Your task to perform on an android device: Empty the shopping cart on amazon. Search for rayovac triple a on amazon, select the first entry, add it to the cart, then select checkout. Image 0: 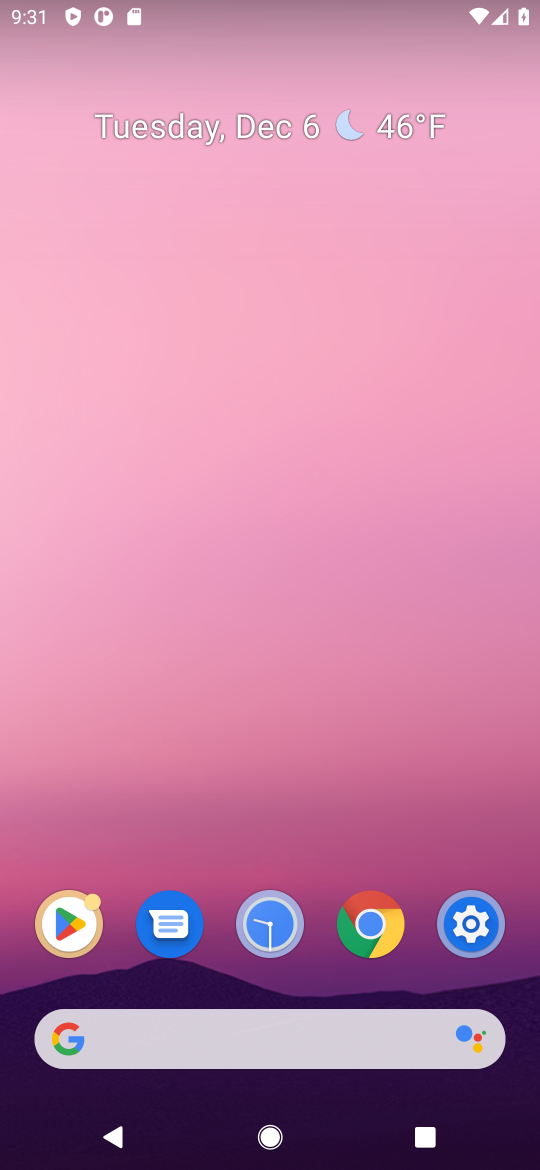
Step 0: click (278, 1030)
Your task to perform on an android device: Empty the shopping cart on amazon. Search for rayovac triple a on amazon, select the first entry, add it to the cart, then select checkout. Image 1: 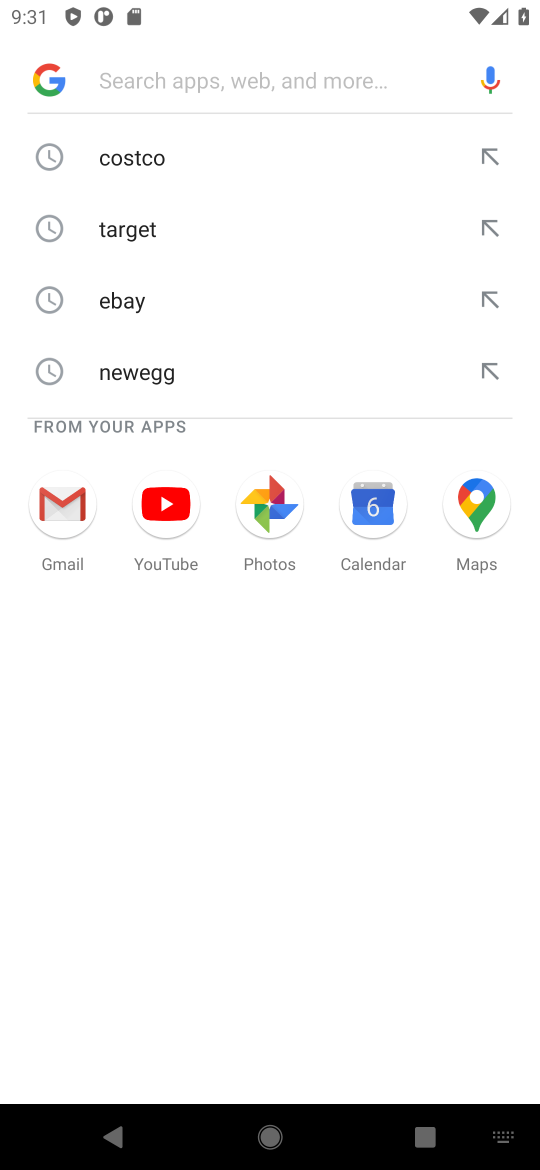
Step 1: type "amazon"
Your task to perform on an android device: Empty the shopping cart on amazon. Search for rayovac triple a on amazon, select the first entry, add it to the cart, then select checkout. Image 2: 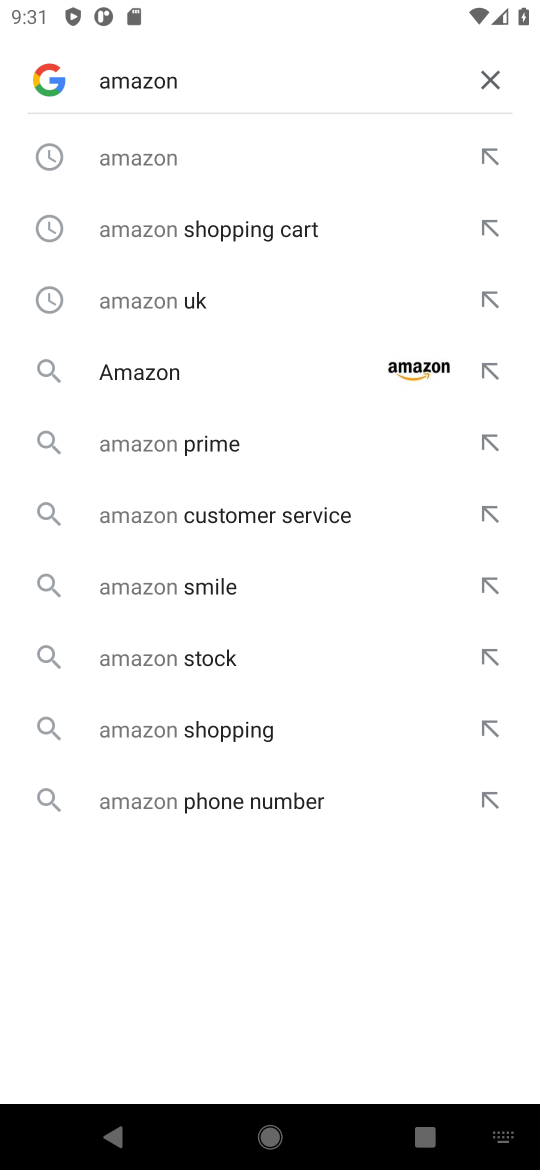
Step 2: click (271, 167)
Your task to perform on an android device: Empty the shopping cart on amazon. Search for rayovac triple a on amazon, select the first entry, add it to the cart, then select checkout. Image 3: 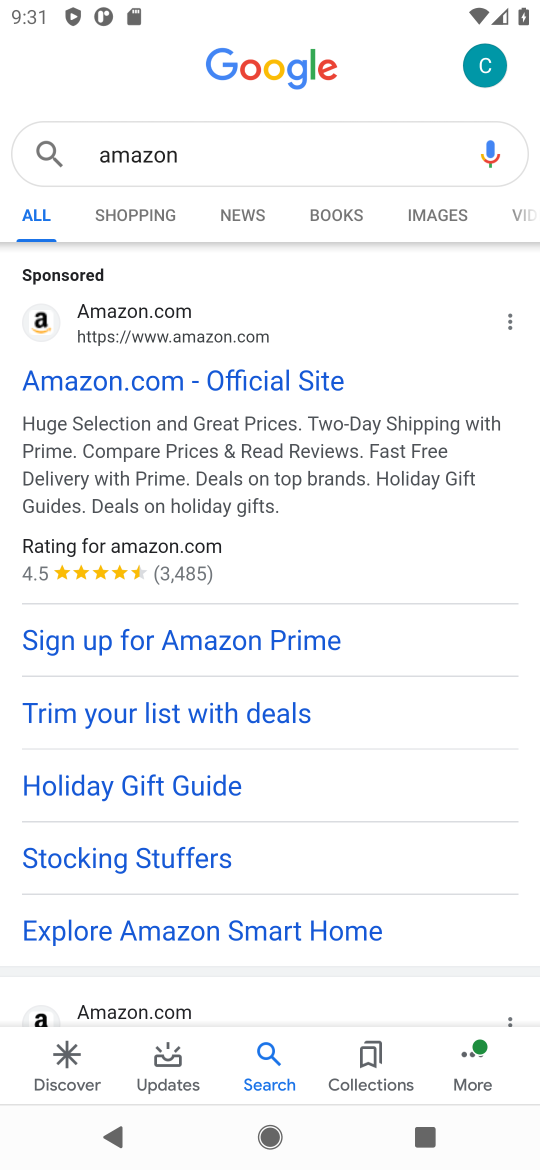
Step 3: click (73, 358)
Your task to perform on an android device: Empty the shopping cart on amazon. Search for rayovac triple a on amazon, select the first entry, add it to the cart, then select checkout. Image 4: 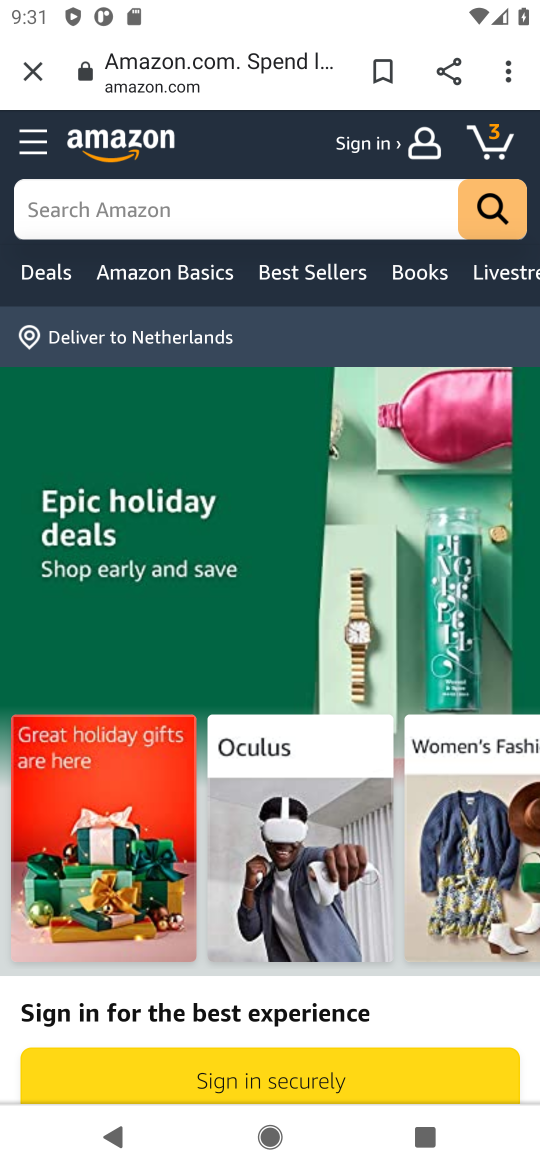
Step 4: click (221, 217)
Your task to perform on an android device: Empty the shopping cart on amazon. Search for rayovac triple a on amazon, select the first entry, add it to the cart, then select checkout. Image 5: 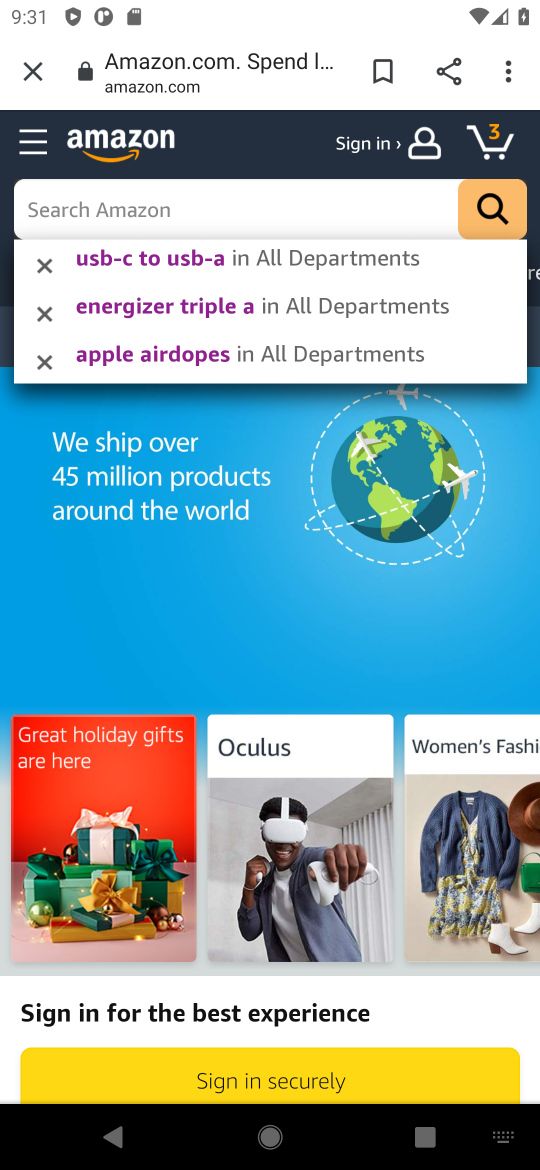
Step 5: type "rayovac"
Your task to perform on an android device: Empty the shopping cart on amazon. Search for rayovac triple a on amazon, select the first entry, add it to the cart, then select checkout. Image 6: 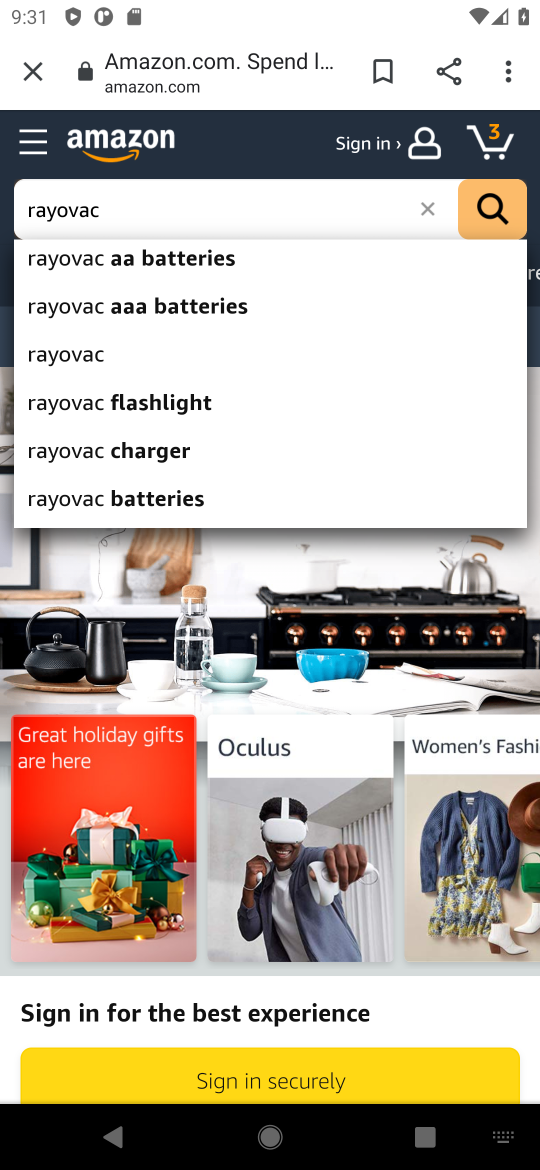
Step 6: click (207, 280)
Your task to perform on an android device: Empty the shopping cart on amazon. Search for rayovac triple a on amazon, select the first entry, add it to the cart, then select checkout. Image 7: 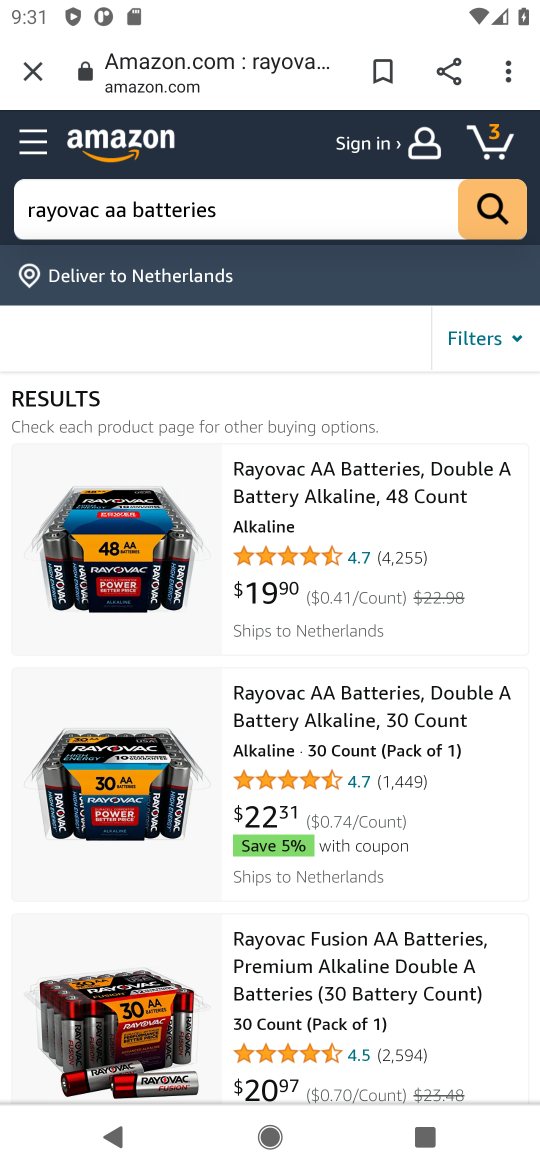
Step 7: click (335, 492)
Your task to perform on an android device: Empty the shopping cart on amazon. Search for rayovac triple a on amazon, select the first entry, add it to the cart, then select checkout. Image 8: 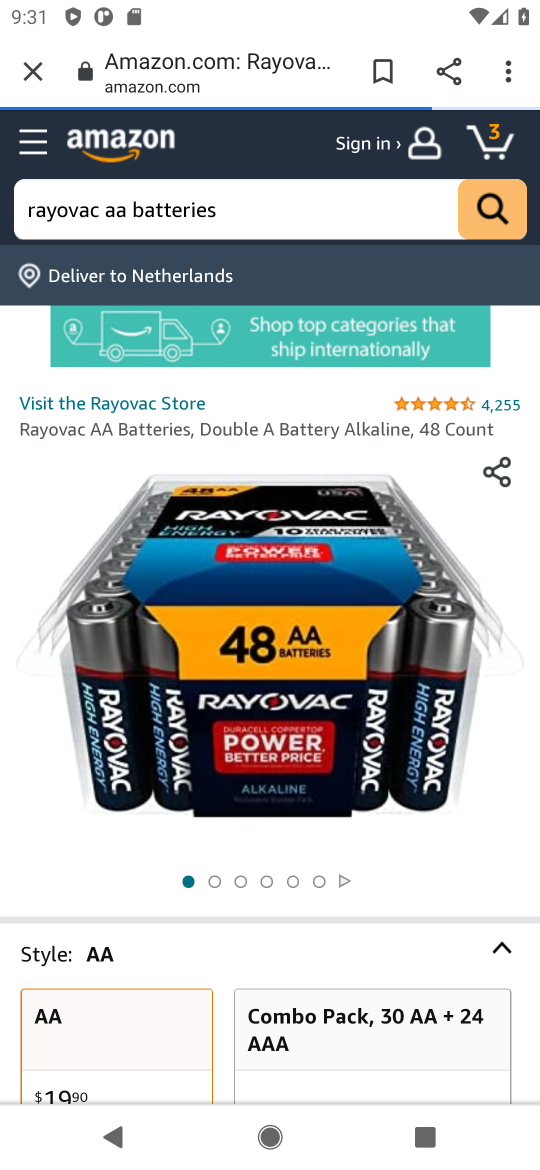
Step 8: drag from (435, 864) to (357, 384)
Your task to perform on an android device: Empty the shopping cart on amazon. Search for rayovac triple a on amazon, select the first entry, add it to the cart, then select checkout. Image 9: 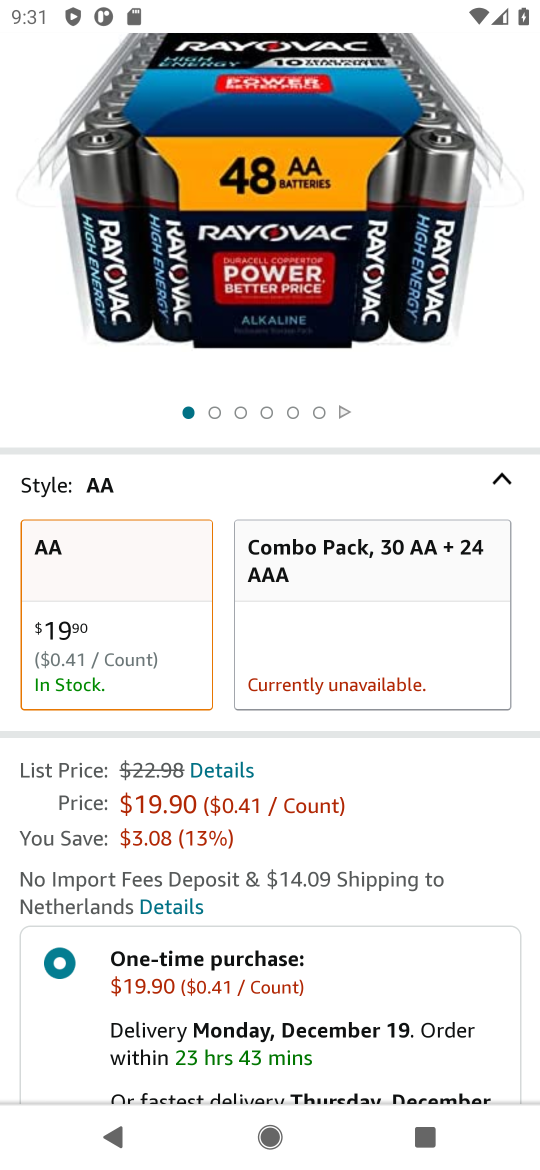
Step 9: drag from (404, 920) to (326, 455)
Your task to perform on an android device: Empty the shopping cart on amazon. Search for rayovac triple a on amazon, select the first entry, add it to the cart, then select checkout. Image 10: 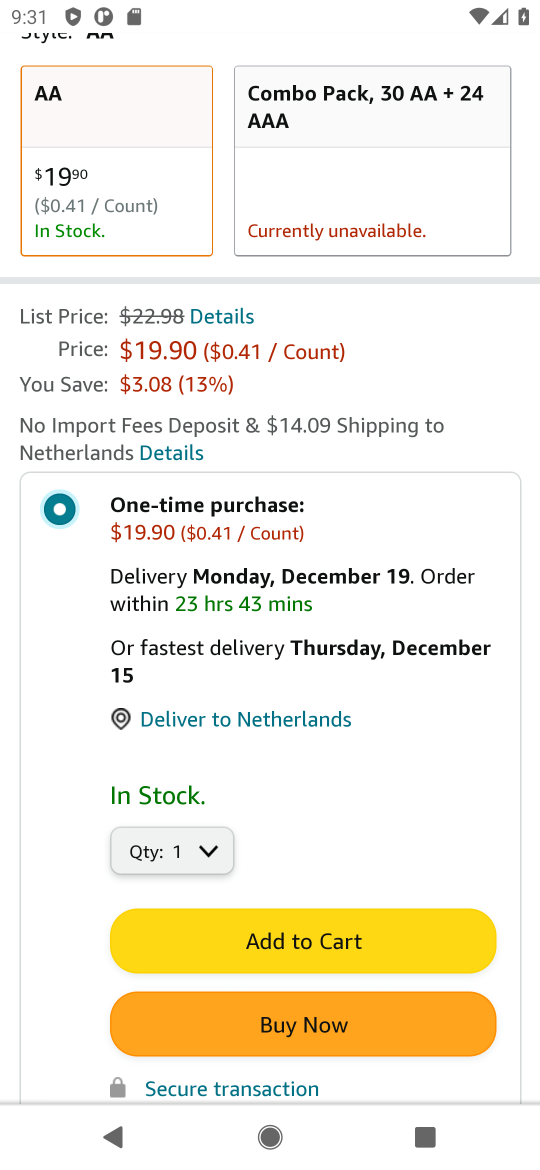
Step 10: click (408, 935)
Your task to perform on an android device: Empty the shopping cart on amazon. Search for rayovac triple a on amazon, select the first entry, add it to the cart, then select checkout. Image 11: 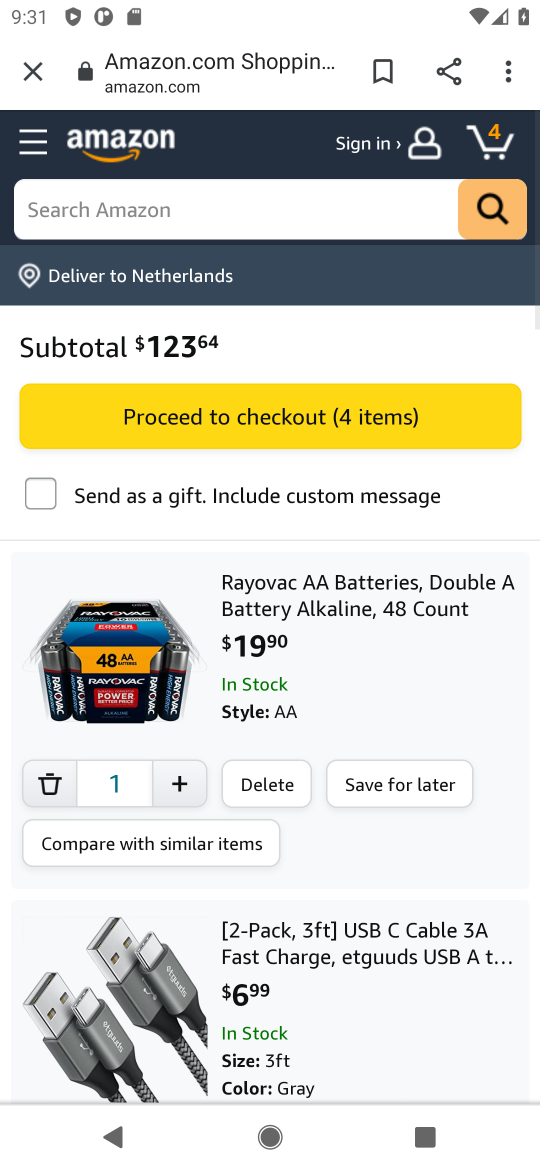
Step 11: task complete